Your task to perform on an android device: Turn on the flashlight Image 0: 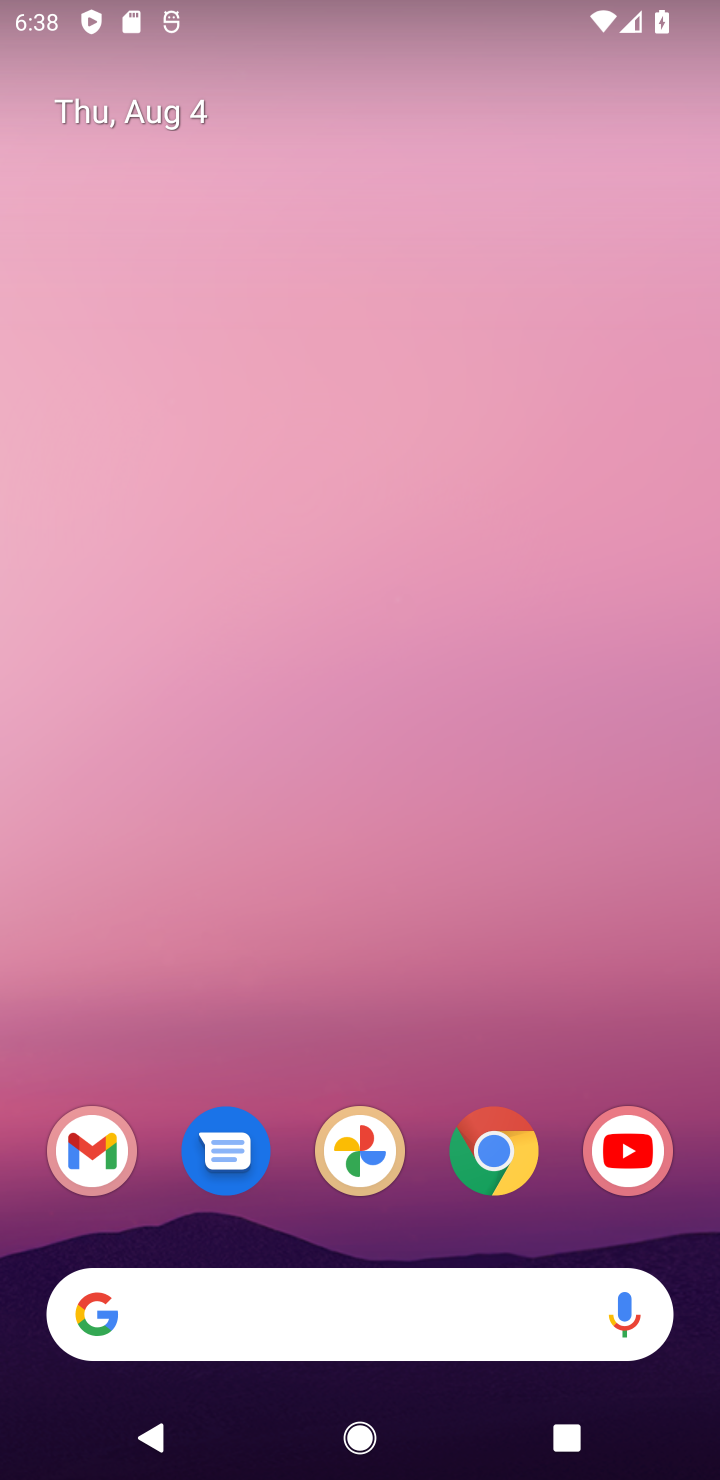
Step 0: drag from (351, 1236) to (343, 321)
Your task to perform on an android device: Turn on the flashlight Image 1: 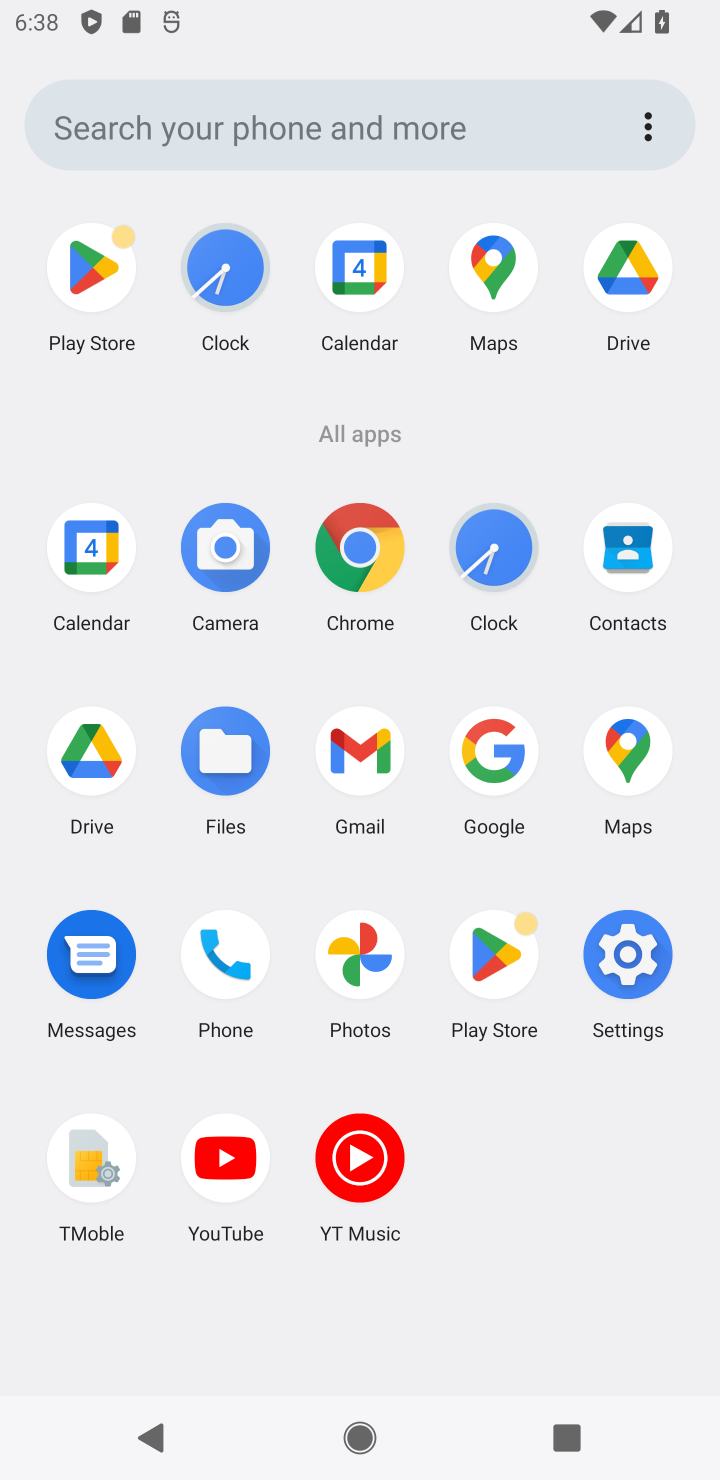
Step 1: click (630, 988)
Your task to perform on an android device: Turn on the flashlight Image 2: 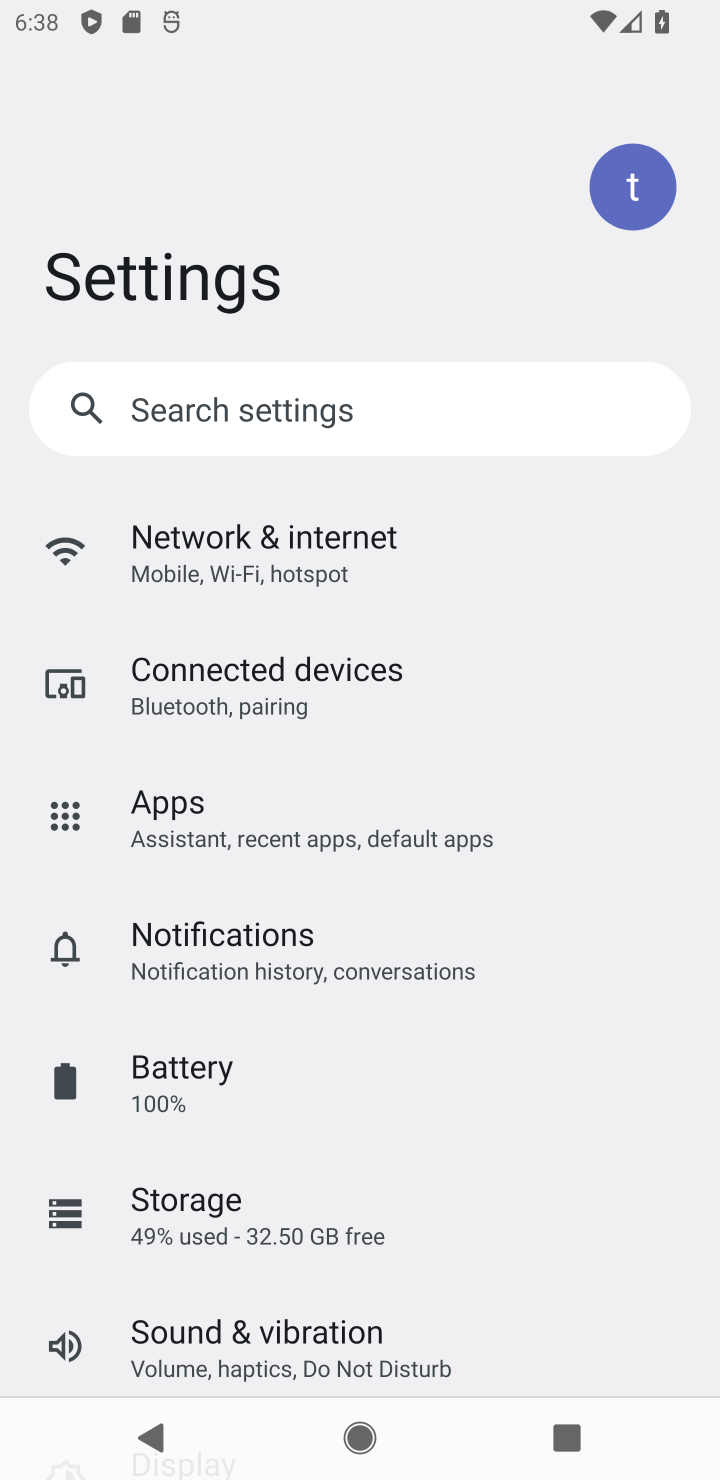
Step 2: click (354, 431)
Your task to perform on an android device: Turn on the flashlight Image 3: 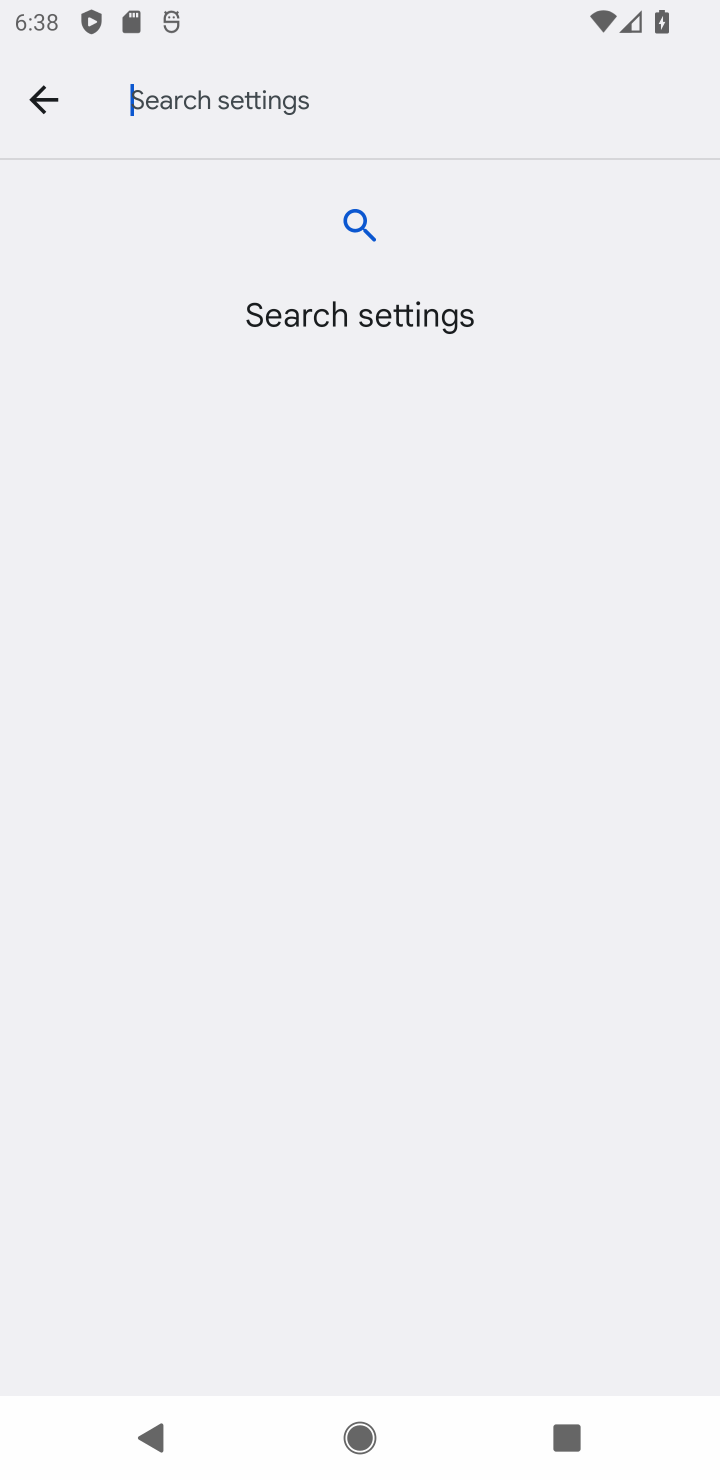
Step 3: type "flashlight"
Your task to perform on an android device: Turn on the flashlight Image 4: 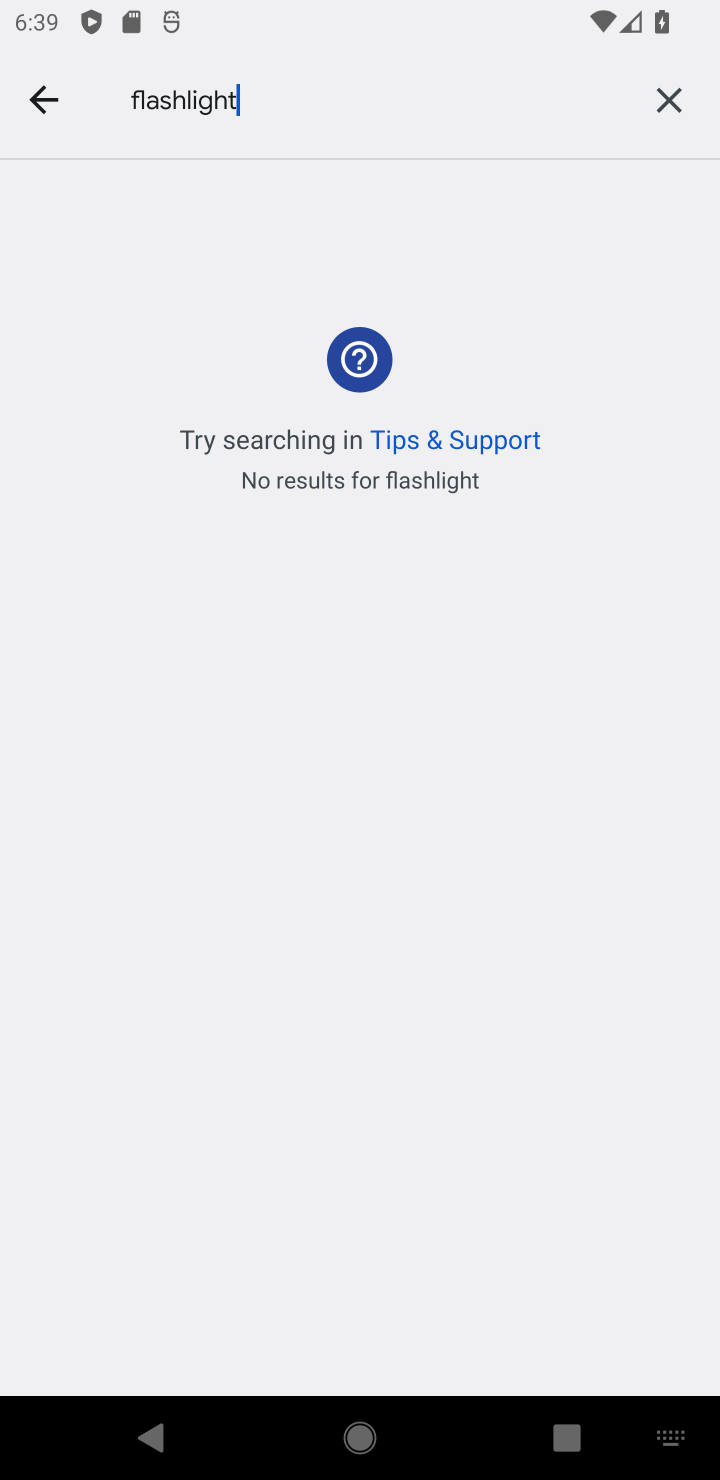
Step 4: task complete